Your task to perform on an android device: Open the phone app and click the voicemail tab. Image 0: 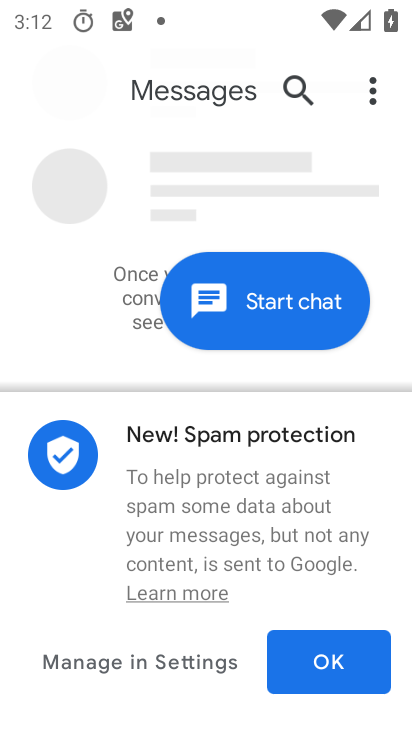
Step 0: press home button
Your task to perform on an android device: Open the phone app and click the voicemail tab. Image 1: 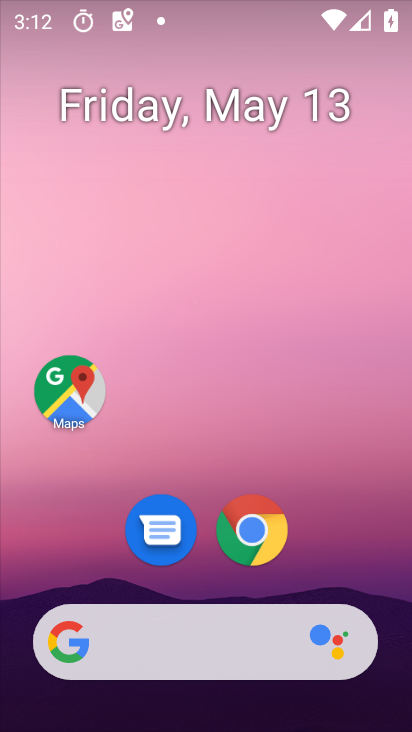
Step 1: drag from (322, 541) to (256, 117)
Your task to perform on an android device: Open the phone app and click the voicemail tab. Image 2: 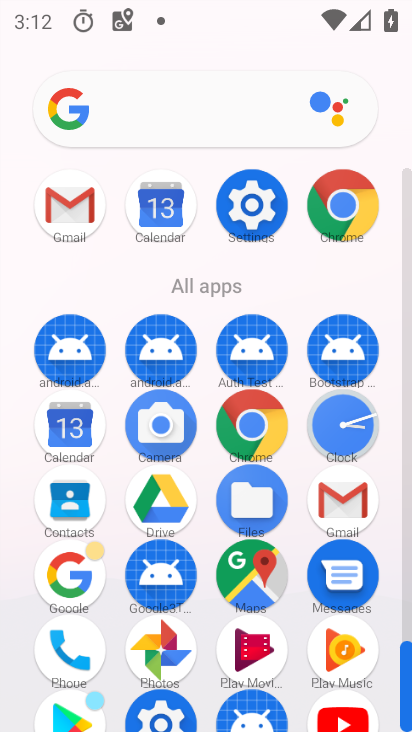
Step 2: click (73, 639)
Your task to perform on an android device: Open the phone app and click the voicemail tab. Image 3: 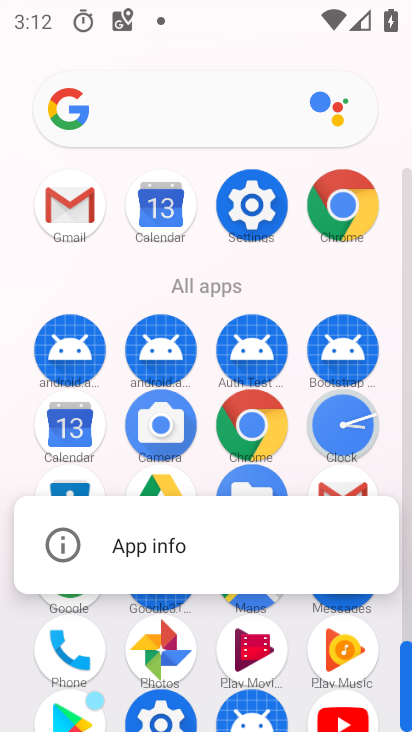
Step 3: click (77, 644)
Your task to perform on an android device: Open the phone app and click the voicemail tab. Image 4: 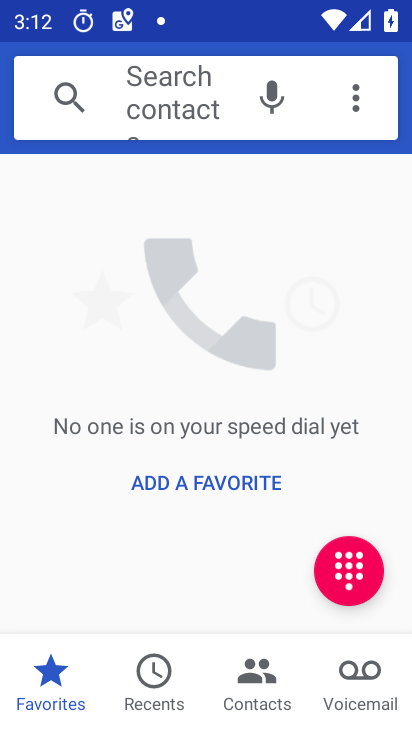
Step 4: click (361, 715)
Your task to perform on an android device: Open the phone app and click the voicemail tab. Image 5: 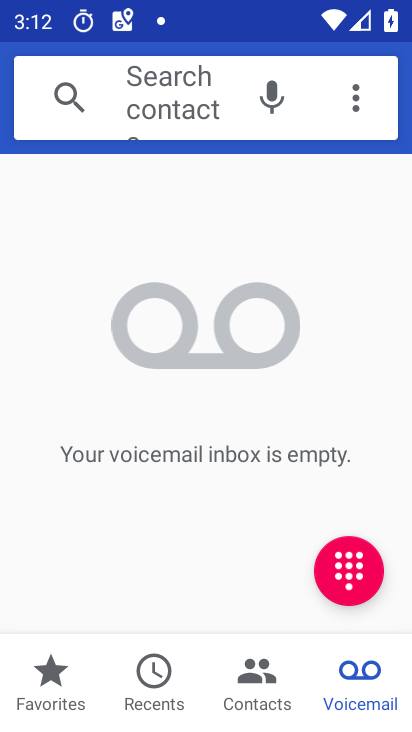
Step 5: task complete